Your task to perform on an android device: Open Youtube and go to the subscriptions tab Image 0: 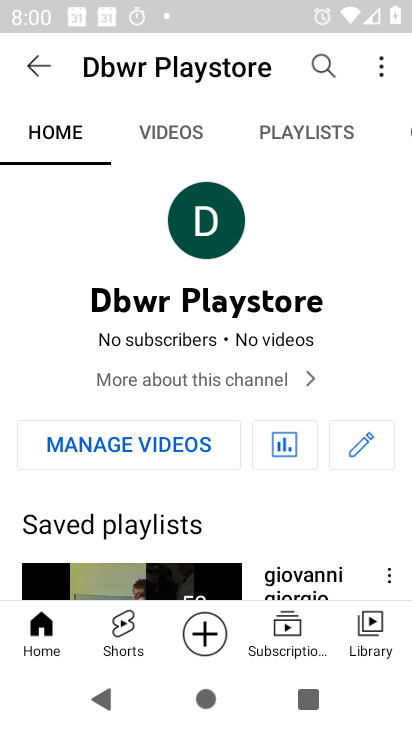
Step 0: press home button
Your task to perform on an android device: Open Youtube and go to the subscriptions tab Image 1: 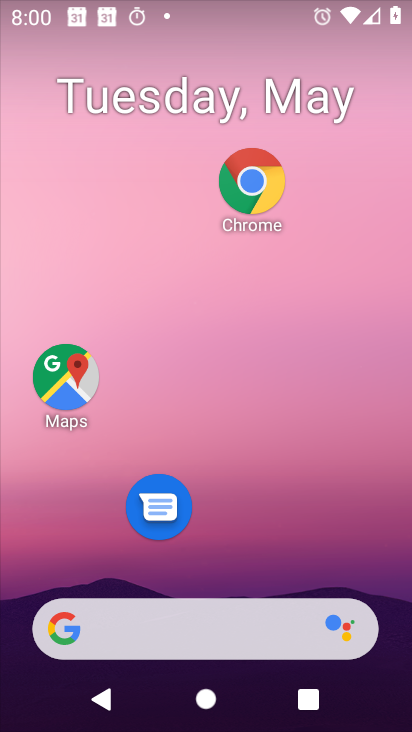
Step 1: drag from (234, 558) to (367, 40)
Your task to perform on an android device: Open Youtube and go to the subscriptions tab Image 2: 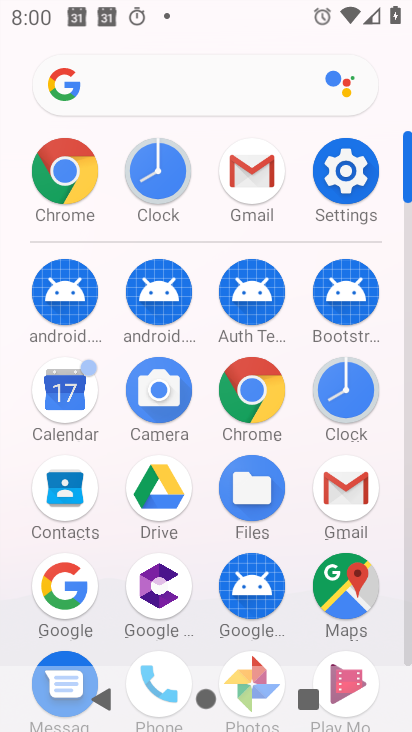
Step 2: drag from (309, 543) to (311, 276)
Your task to perform on an android device: Open Youtube and go to the subscriptions tab Image 3: 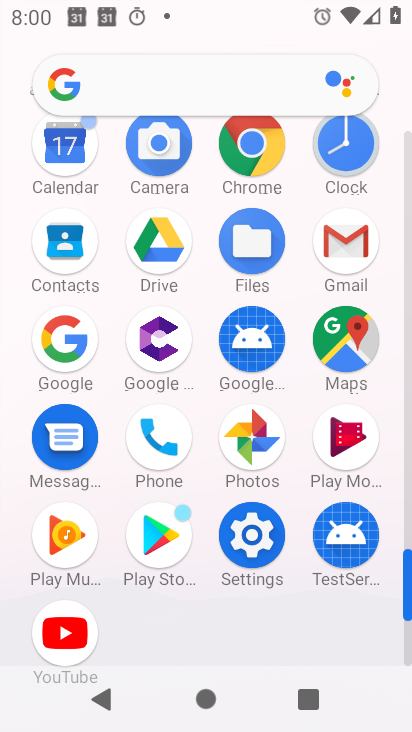
Step 3: click (56, 625)
Your task to perform on an android device: Open Youtube and go to the subscriptions tab Image 4: 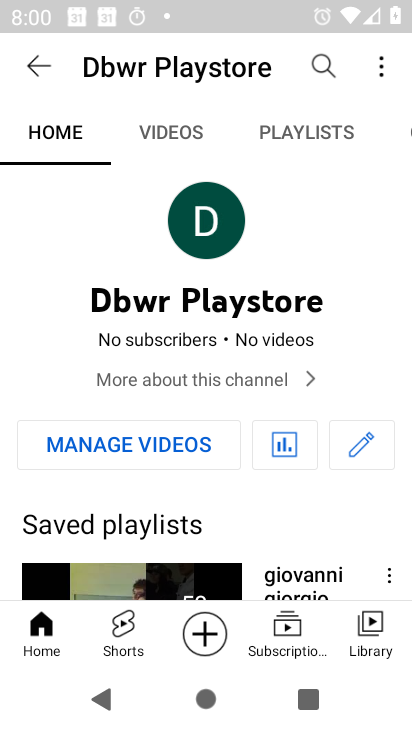
Step 4: click (280, 628)
Your task to perform on an android device: Open Youtube and go to the subscriptions tab Image 5: 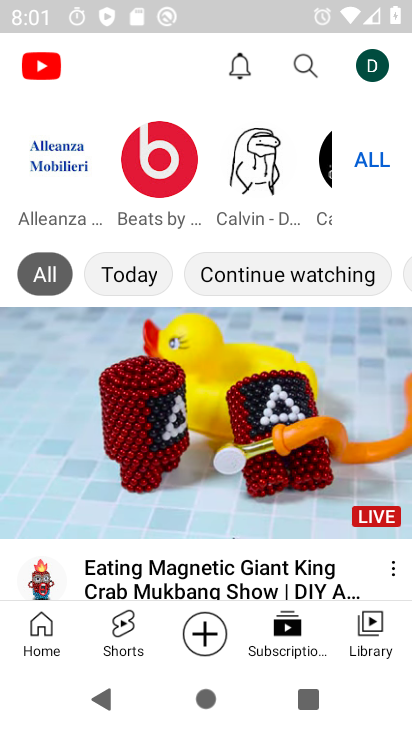
Step 5: task complete